Your task to perform on an android device: Search for "lenovo thinkpad" on target, select the first entry, add it to the cart, then select checkout. Image 0: 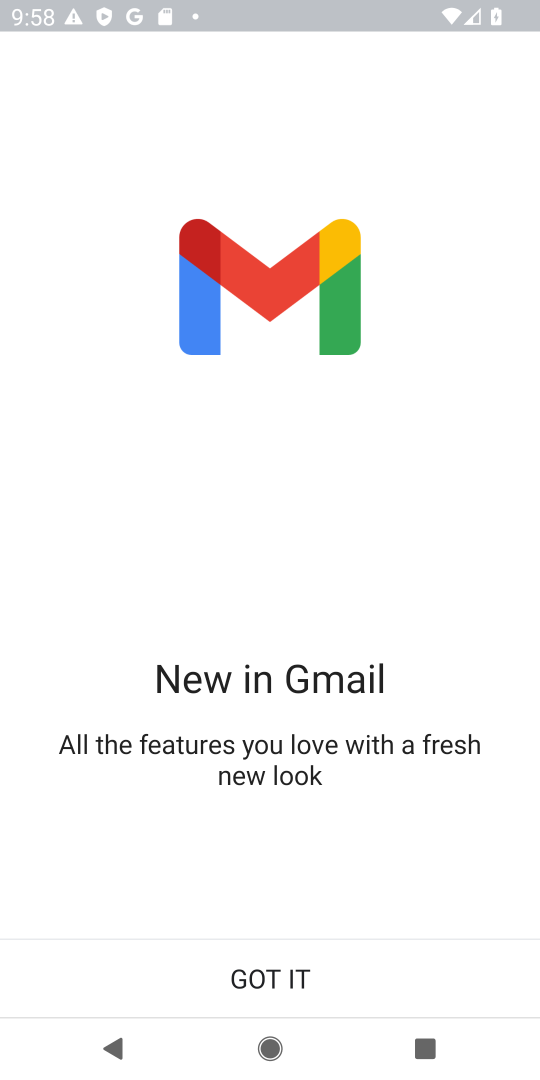
Step 0: press home button
Your task to perform on an android device: Search for "lenovo thinkpad" on target, select the first entry, add it to the cart, then select checkout. Image 1: 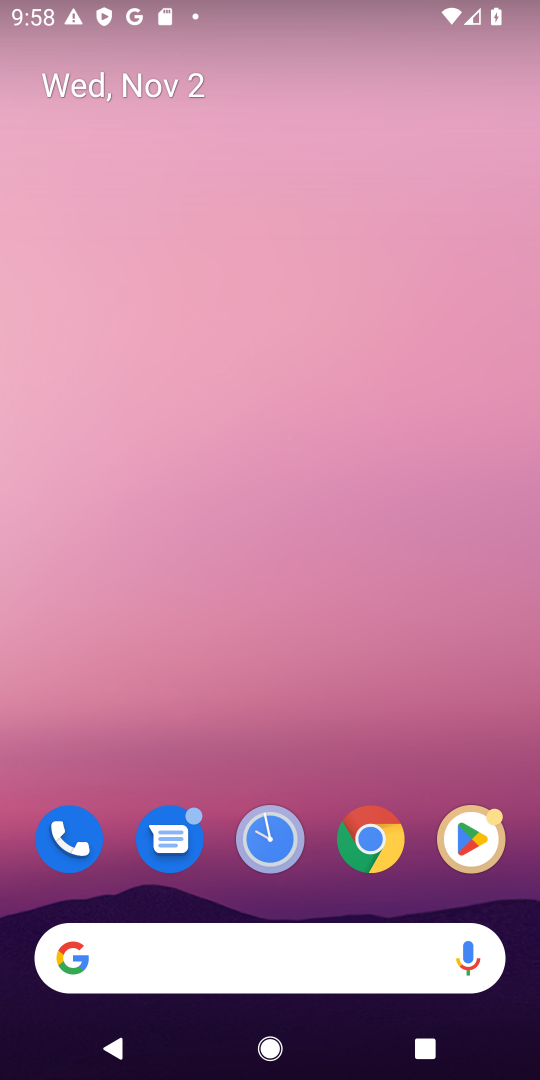
Step 1: drag from (388, 926) to (397, 5)
Your task to perform on an android device: Search for "lenovo thinkpad" on target, select the first entry, add it to the cart, then select checkout. Image 2: 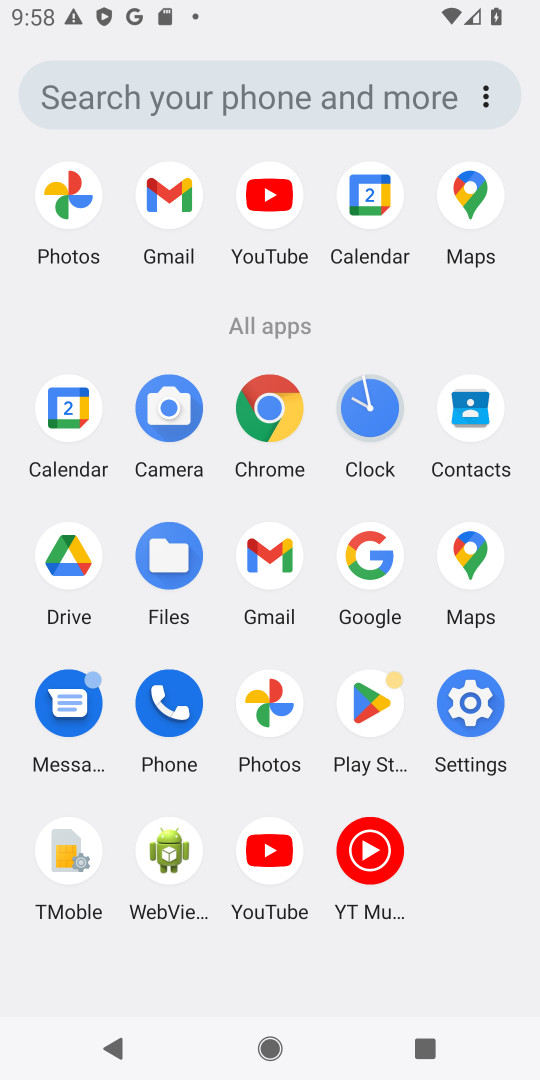
Step 2: click (370, 568)
Your task to perform on an android device: Search for "lenovo thinkpad" on target, select the first entry, add it to the cart, then select checkout. Image 3: 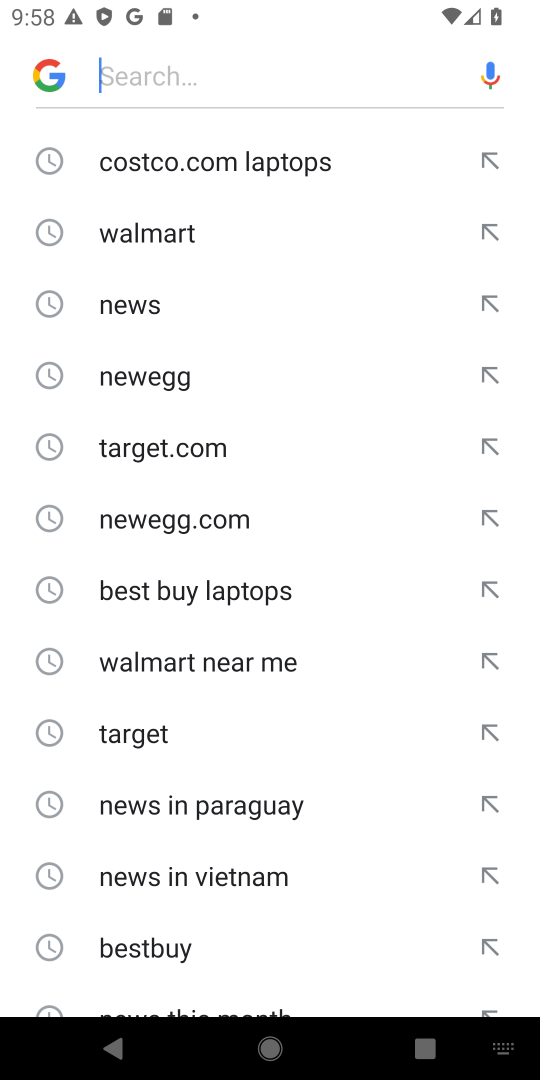
Step 3: type "target"
Your task to perform on an android device: Search for "lenovo thinkpad" on target, select the first entry, add it to the cart, then select checkout. Image 4: 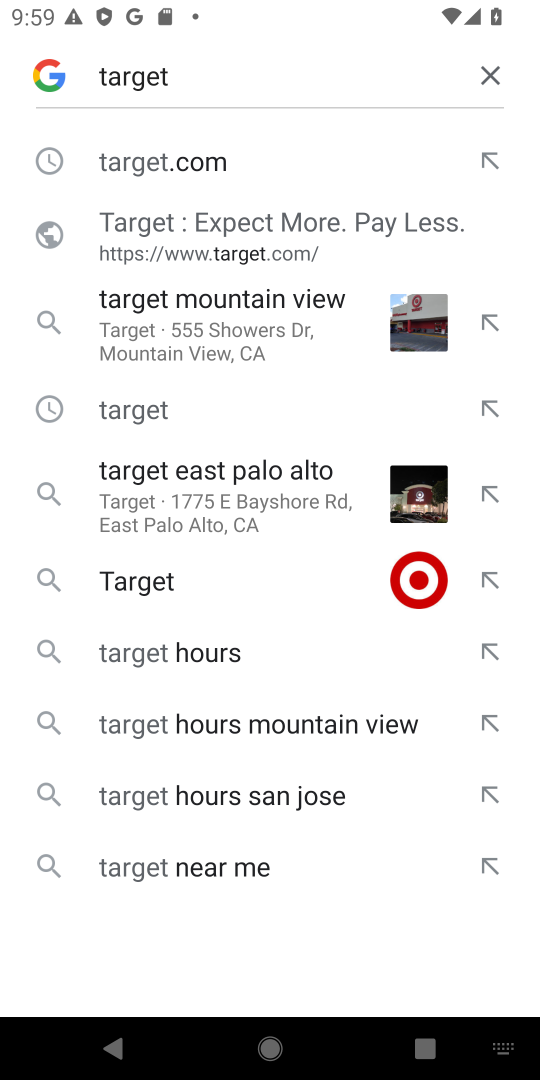
Step 4: click (235, 151)
Your task to perform on an android device: Search for "lenovo thinkpad" on target, select the first entry, add it to the cart, then select checkout. Image 5: 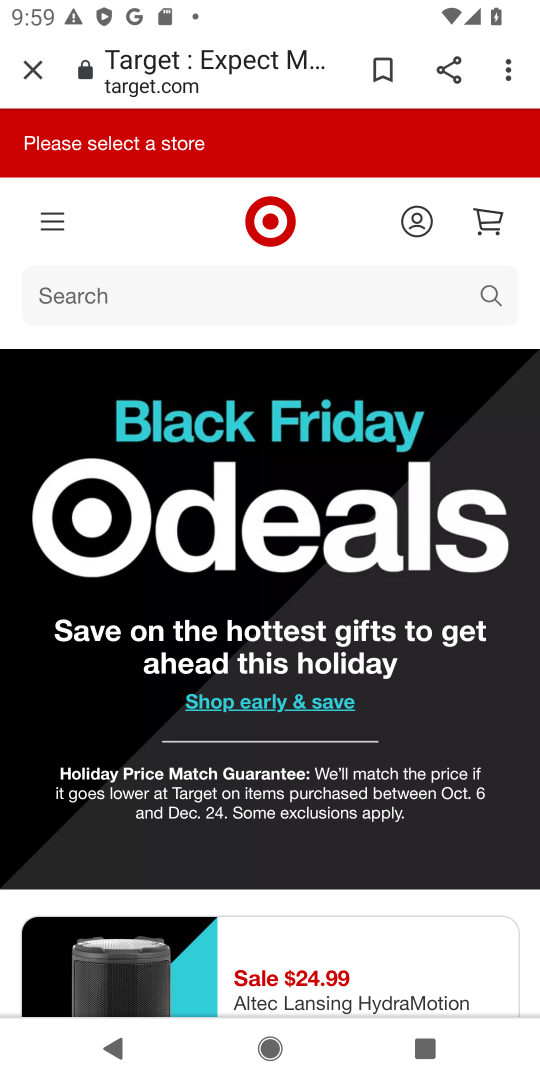
Step 5: click (351, 280)
Your task to perform on an android device: Search for "lenovo thinkpad" on target, select the first entry, add it to the cart, then select checkout. Image 6: 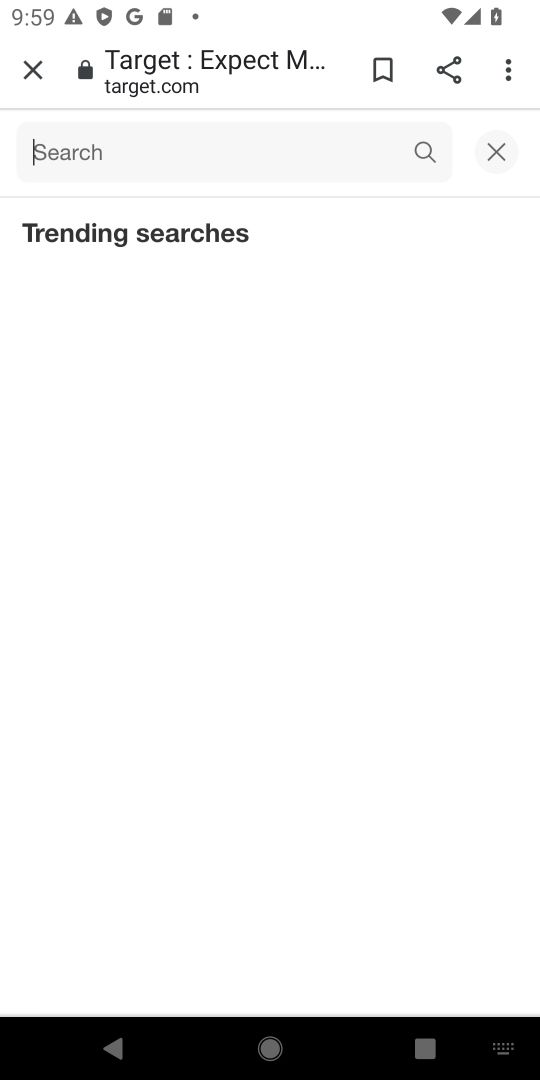
Step 6: type "lenovo thinkpad"
Your task to perform on an android device: Search for "lenovo thinkpad" on target, select the first entry, add it to the cart, then select checkout. Image 7: 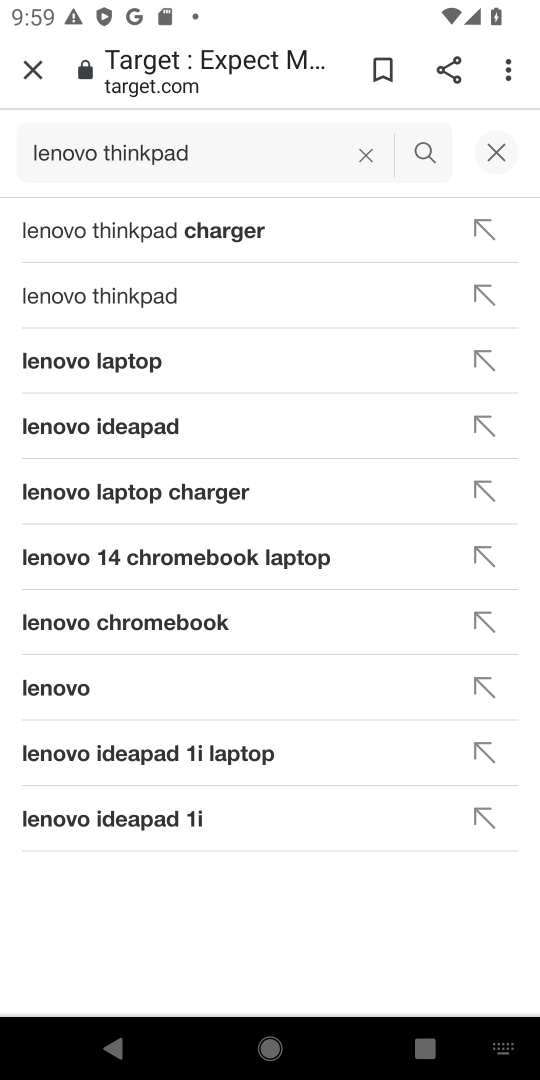
Step 7: click (273, 300)
Your task to perform on an android device: Search for "lenovo thinkpad" on target, select the first entry, add it to the cart, then select checkout. Image 8: 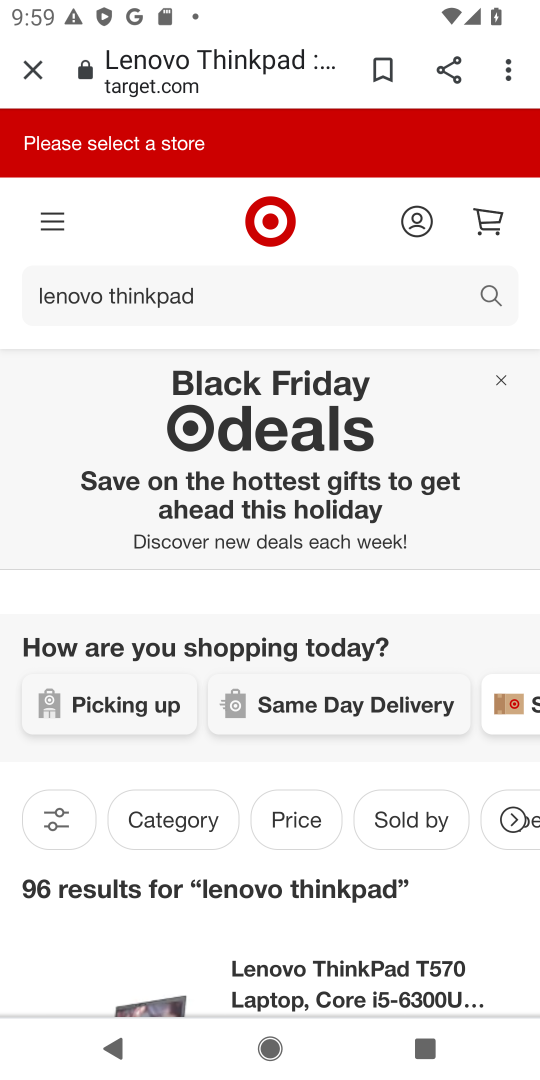
Step 8: click (404, 962)
Your task to perform on an android device: Search for "lenovo thinkpad" on target, select the first entry, add it to the cart, then select checkout. Image 9: 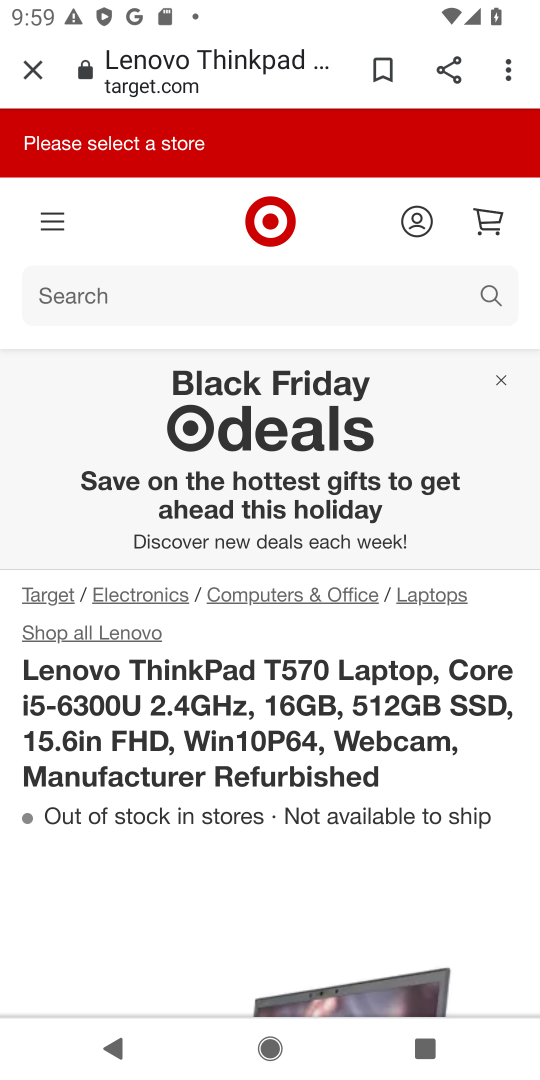
Step 9: drag from (356, 834) to (344, 425)
Your task to perform on an android device: Search for "lenovo thinkpad" on target, select the first entry, add it to the cart, then select checkout. Image 10: 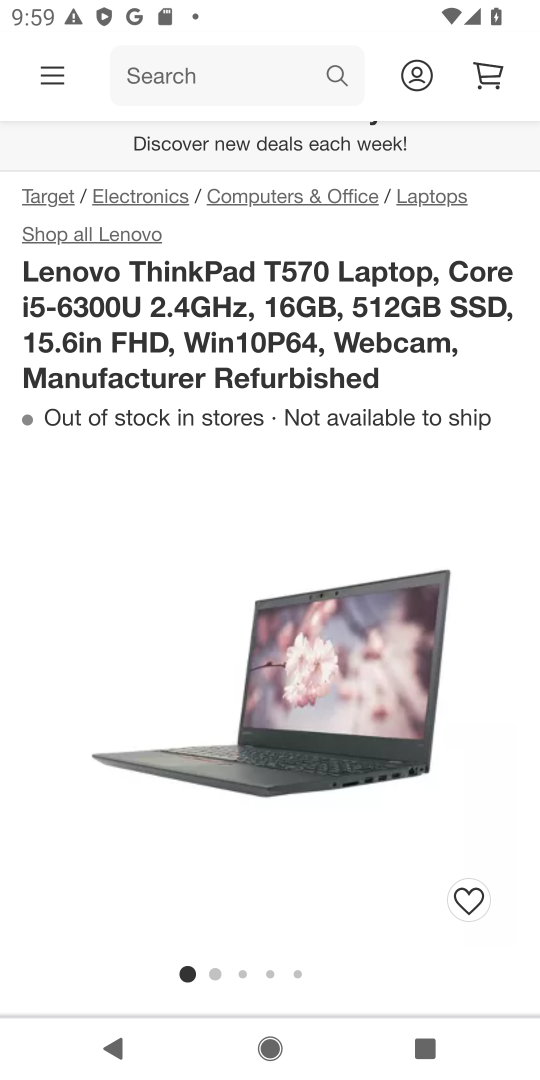
Step 10: drag from (357, 634) to (344, 396)
Your task to perform on an android device: Search for "lenovo thinkpad" on target, select the first entry, add it to the cart, then select checkout. Image 11: 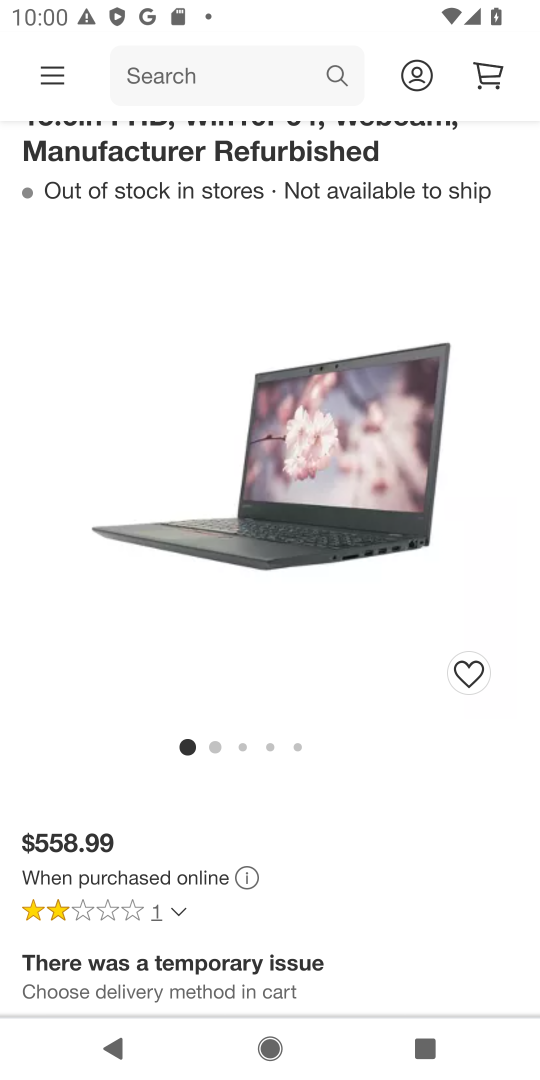
Step 11: drag from (417, 759) to (416, 492)
Your task to perform on an android device: Search for "lenovo thinkpad" on target, select the first entry, add it to the cart, then select checkout. Image 12: 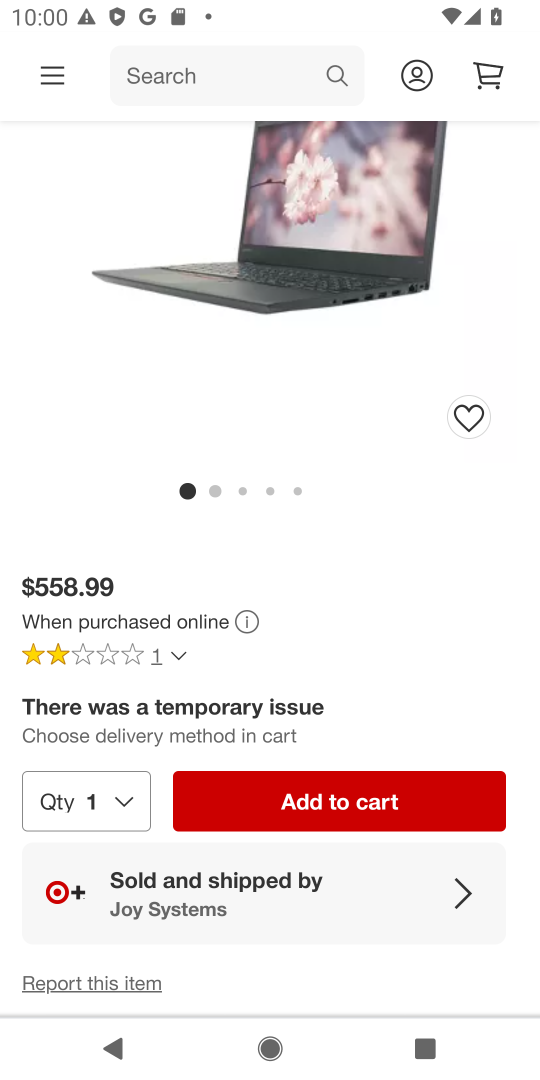
Step 12: click (416, 787)
Your task to perform on an android device: Search for "lenovo thinkpad" on target, select the first entry, add it to the cart, then select checkout. Image 13: 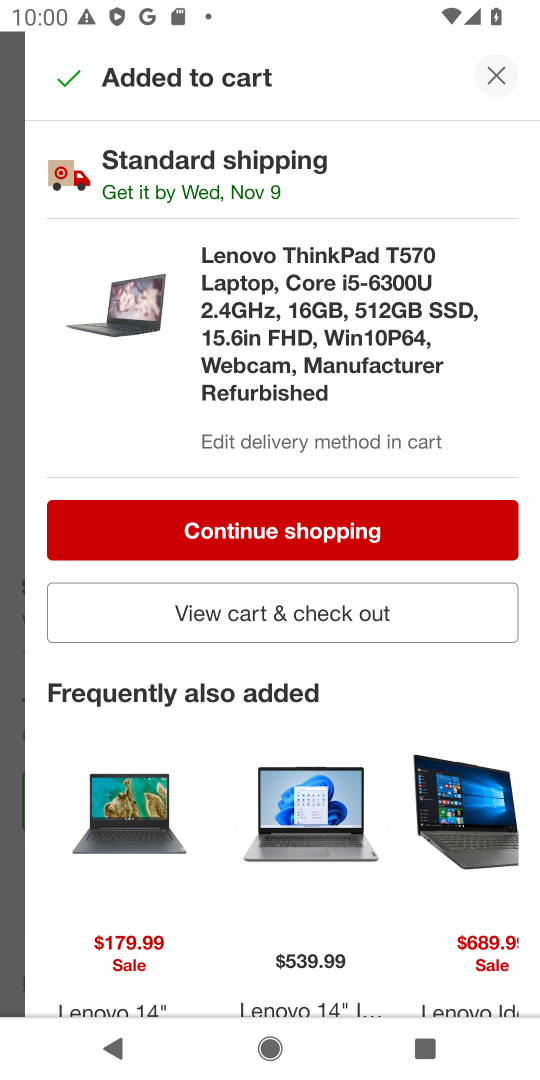
Step 13: click (345, 619)
Your task to perform on an android device: Search for "lenovo thinkpad" on target, select the first entry, add it to the cart, then select checkout. Image 14: 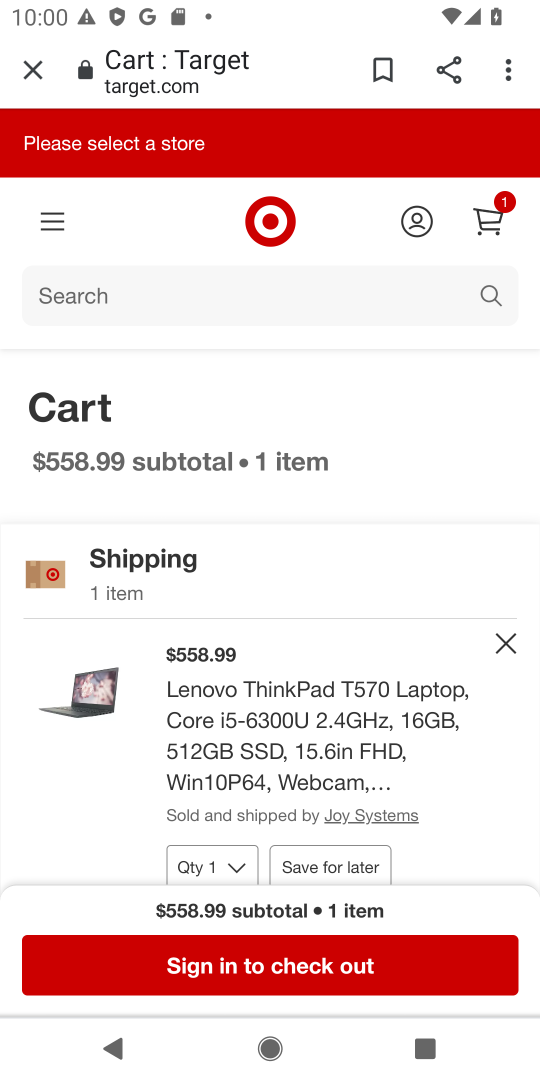
Step 14: click (414, 955)
Your task to perform on an android device: Search for "lenovo thinkpad" on target, select the first entry, add it to the cart, then select checkout. Image 15: 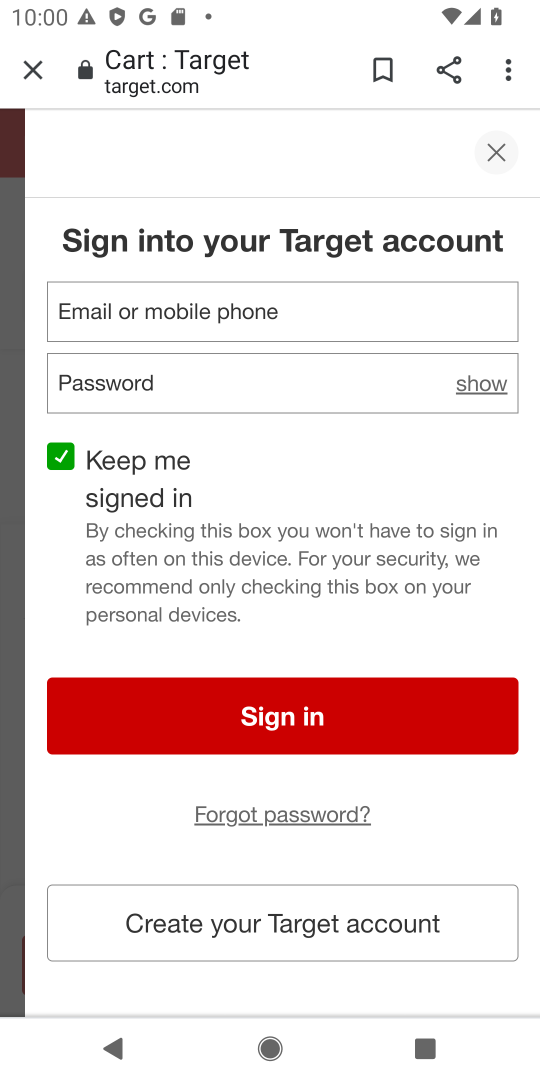
Step 15: task complete